Your task to perform on an android device: Is it going to rain today? Image 0: 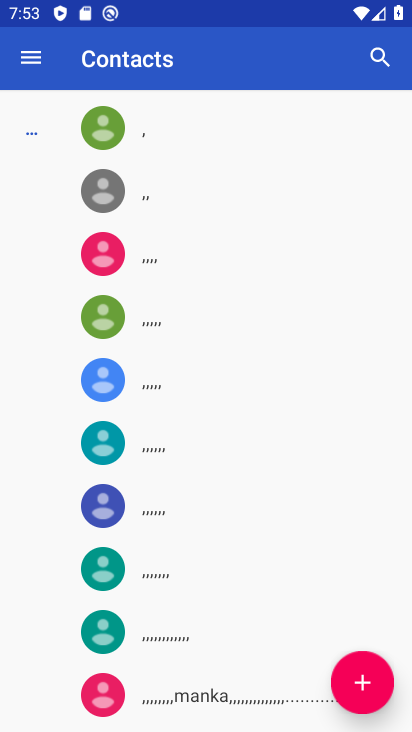
Step 0: press home button
Your task to perform on an android device: Is it going to rain today? Image 1: 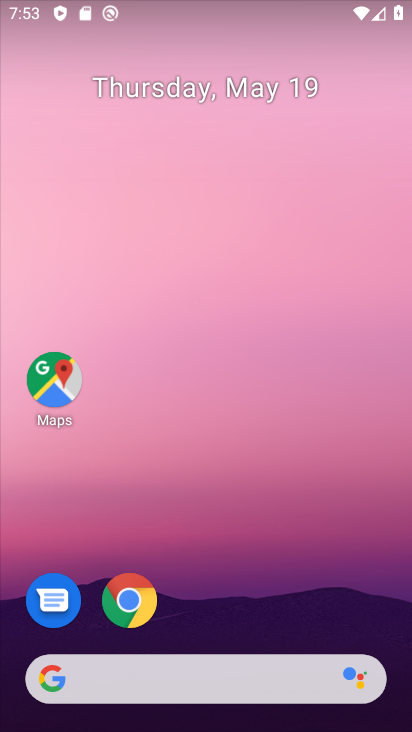
Step 1: click (266, 675)
Your task to perform on an android device: Is it going to rain today? Image 2: 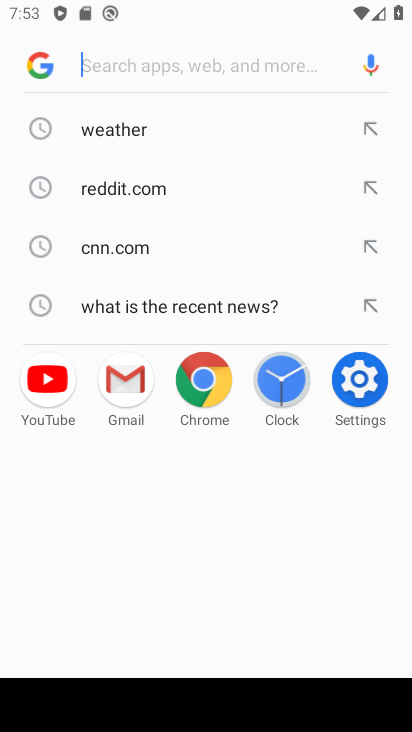
Step 2: click (142, 147)
Your task to perform on an android device: Is it going to rain today? Image 3: 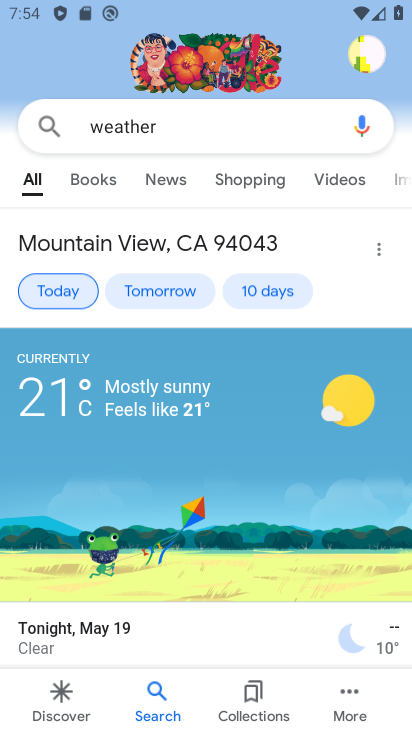
Step 3: drag from (247, 519) to (276, 320)
Your task to perform on an android device: Is it going to rain today? Image 4: 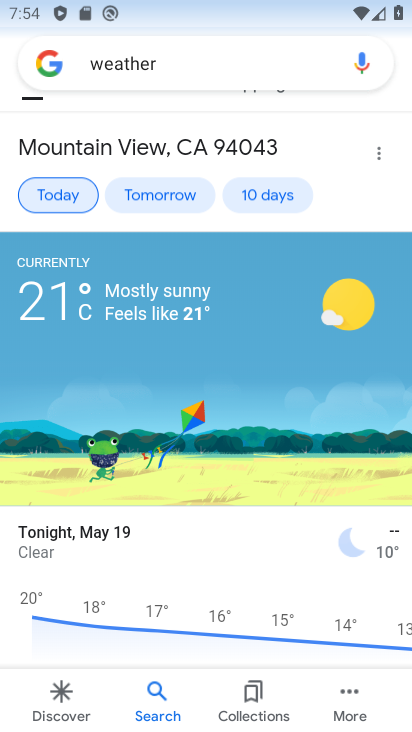
Step 4: drag from (269, 451) to (272, 354)
Your task to perform on an android device: Is it going to rain today? Image 5: 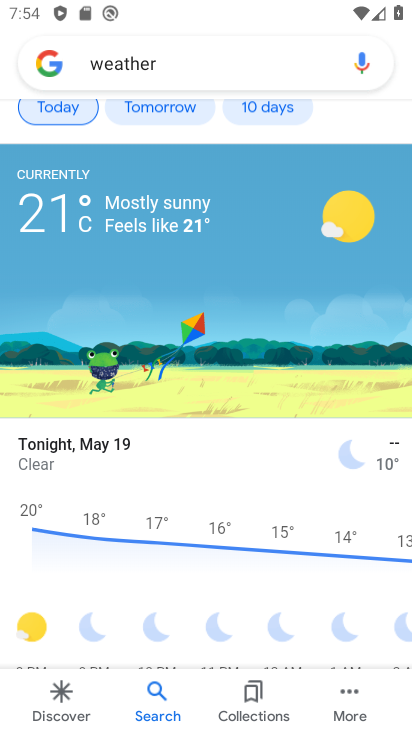
Step 5: drag from (260, 198) to (246, 319)
Your task to perform on an android device: Is it going to rain today? Image 6: 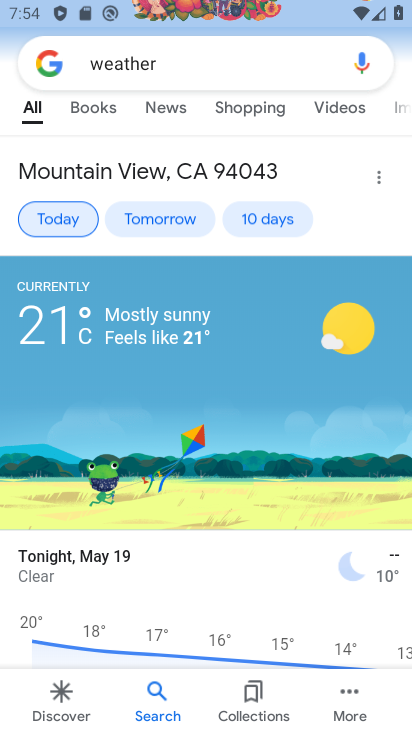
Step 6: click (55, 219)
Your task to perform on an android device: Is it going to rain today? Image 7: 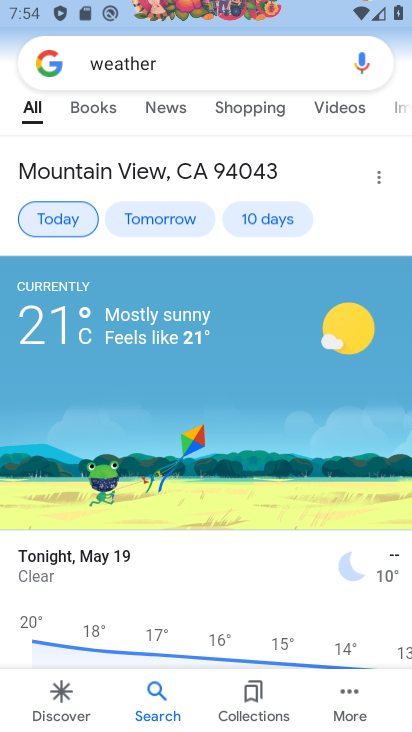
Step 7: click (55, 219)
Your task to perform on an android device: Is it going to rain today? Image 8: 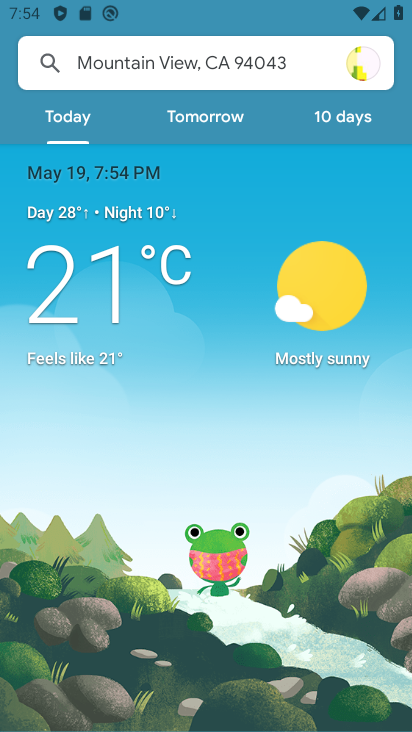
Step 8: task complete